Your task to perform on an android device: turn on improve location accuracy Image 0: 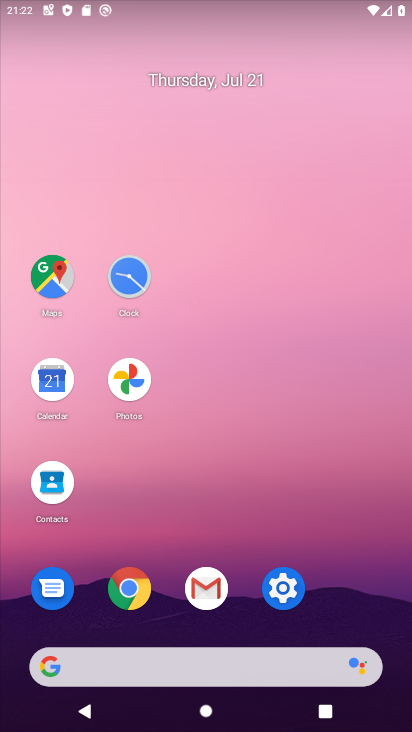
Step 0: click (284, 587)
Your task to perform on an android device: turn on improve location accuracy Image 1: 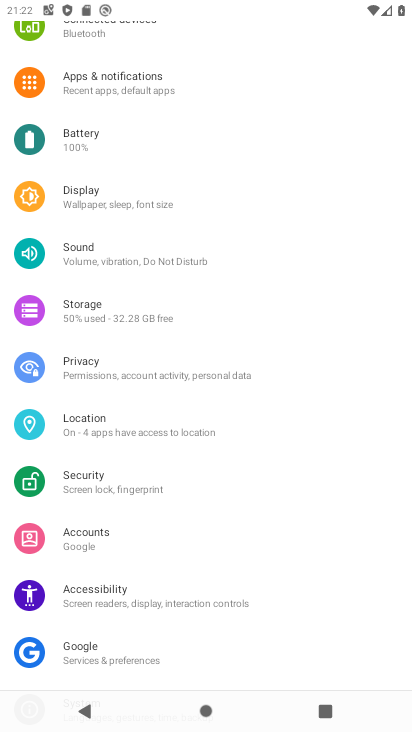
Step 1: click (76, 423)
Your task to perform on an android device: turn on improve location accuracy Image 2: 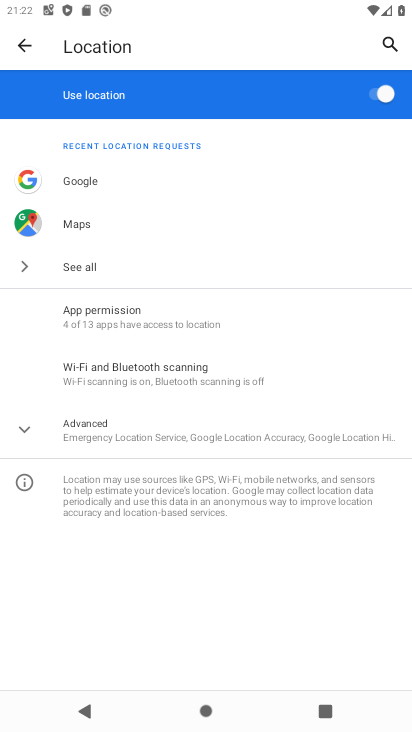
Step 2: click (18, 425)
Your task to perform on an android device: turn on improve location accuracy Image 3: 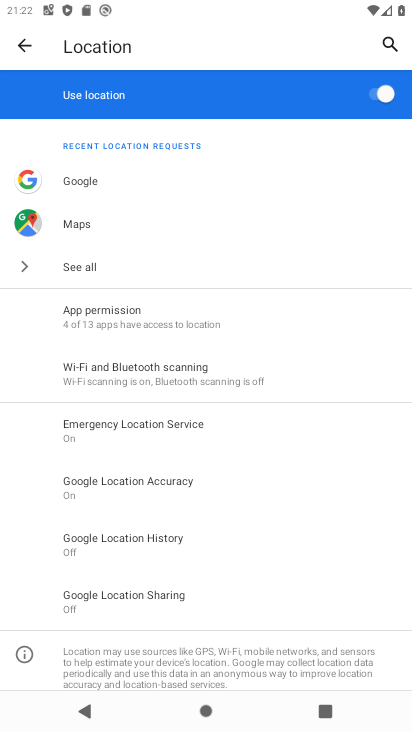
Step 3: click (138, 485)
Your task to perform on an android device: turn on improve location accuracy Image 4: 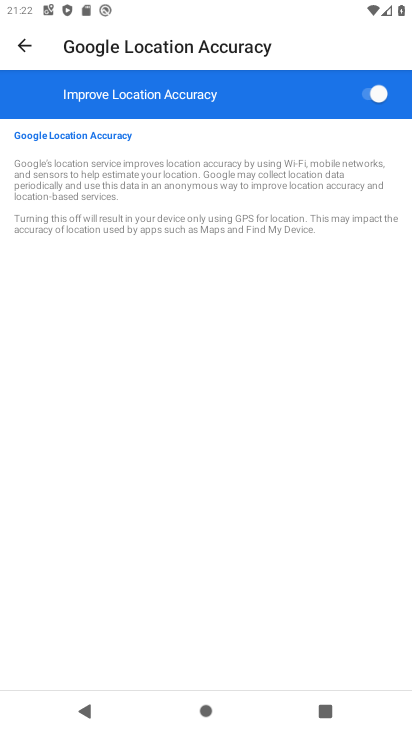
Step 4: task complete